Your task to perform on an android device: choose inbox layout in the gmail app Image 0: 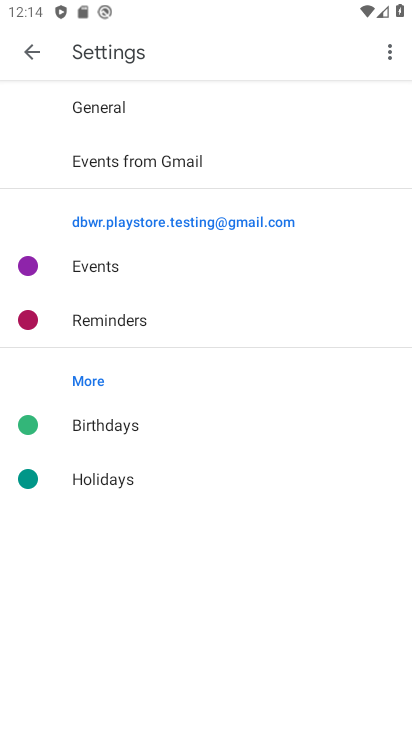
Step 0: press back button
Your task to perform on an android device: choose inbox layout in the gmail app Image 1: 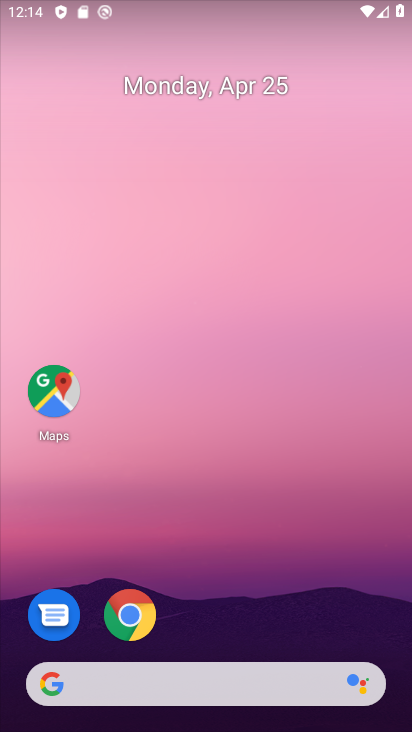
Step 1: drag from (357, 636) to (356, 186)
Your task to perform on an android device: choose inbox layout in the gmail app Image 2: 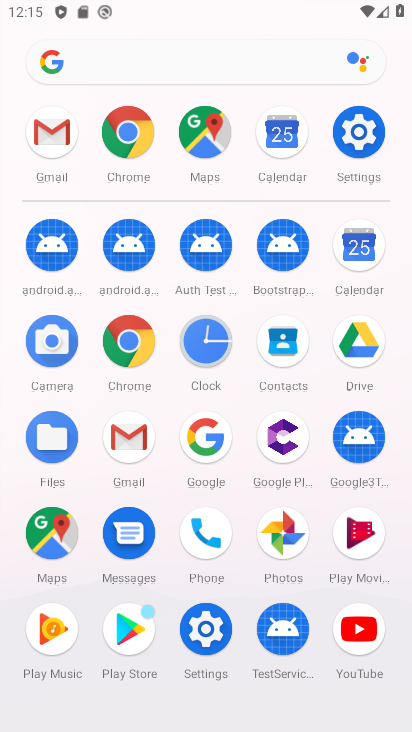
Step 2: click (135, 429)
Your task to perform on an android device: choose inbox layout in the gmail app Image 3: 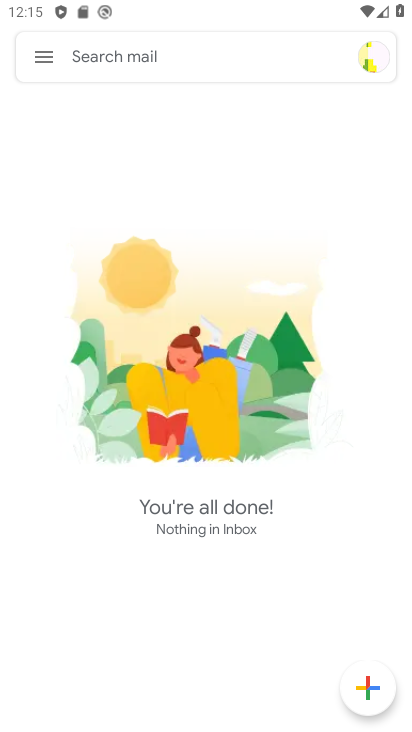
Step 3: click (45, 51)
Your task to perform on an android device: choose inbox layout in the gmail app Image 4: 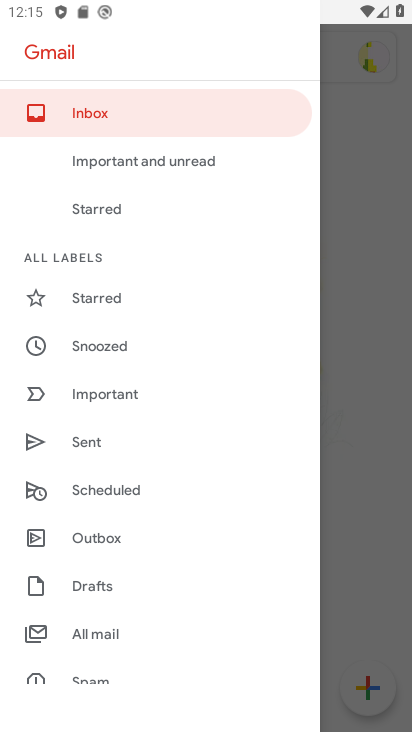
Step 4: drag from (180, 613) to (190, 403)
Your task to perform on an android device: choose inbox layout in the gmail app Image 5: 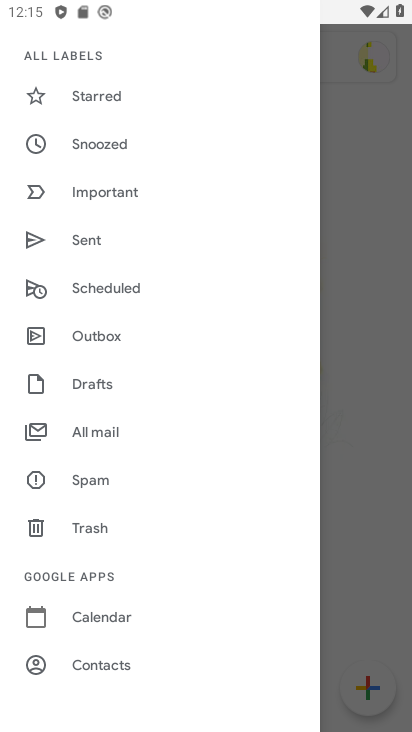
Step 5: drag from (196, 612) to (204, 422)
Your task to perform on an android device: choose inbox layout in the gmail app Image 6: 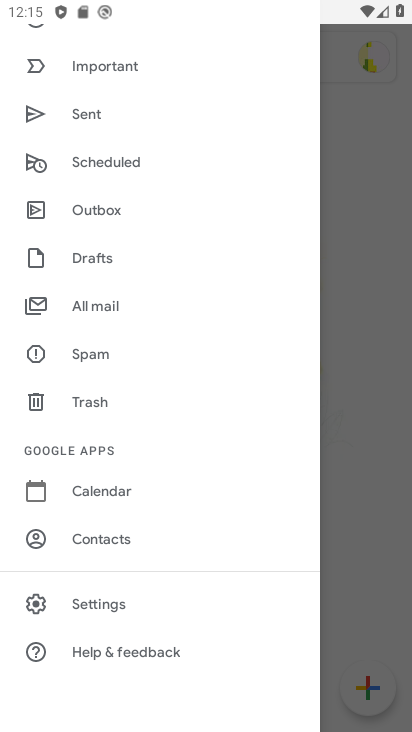
Step 6: click (133, 608)
Your task to perform on an android device: choose inbox layout in the gmail app Image 7: 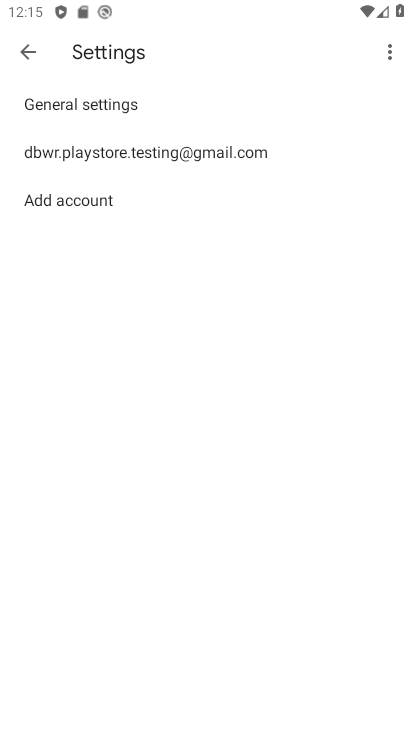
Step 7: click (96, 159)
Your task to perform on an android device: choose inbox layout in the gmail app Image 8: 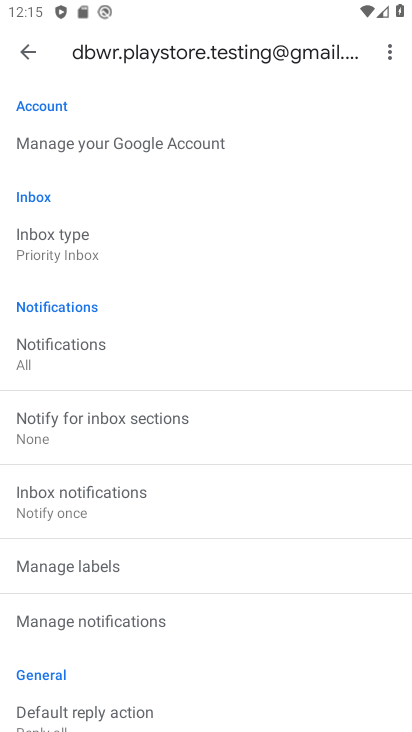
Step 8: click (78, 240)
Your task to perform on an android device: choose inbox layout in the gmail app Image 9: 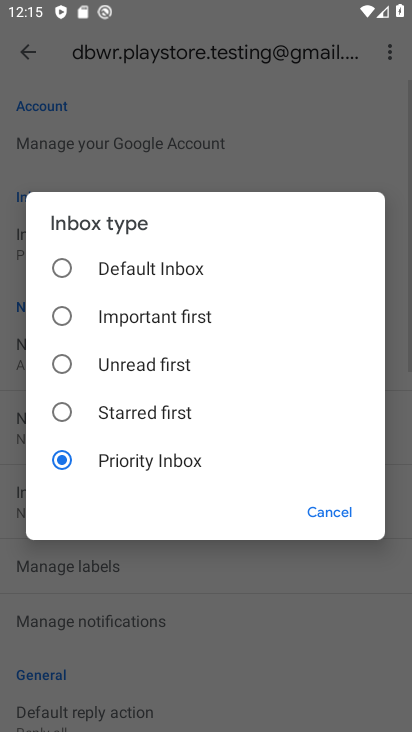
Step 9: click (141, 255)
Your task to perform on an android device: choose inbox layout in the gmail app Image 10: 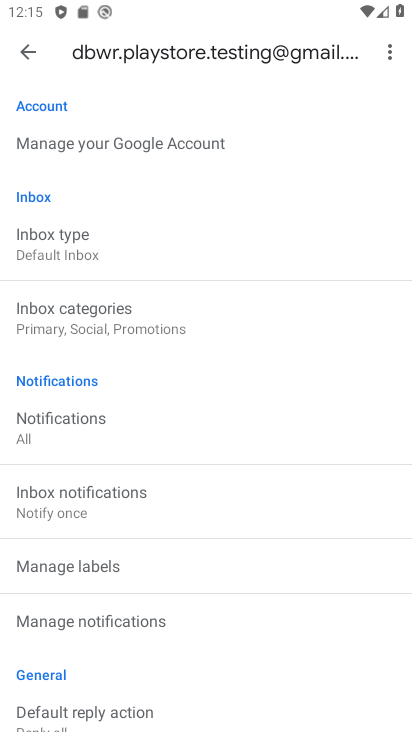
Step 10: task complete